Your task to perform on an android device: Open maps Image 0: 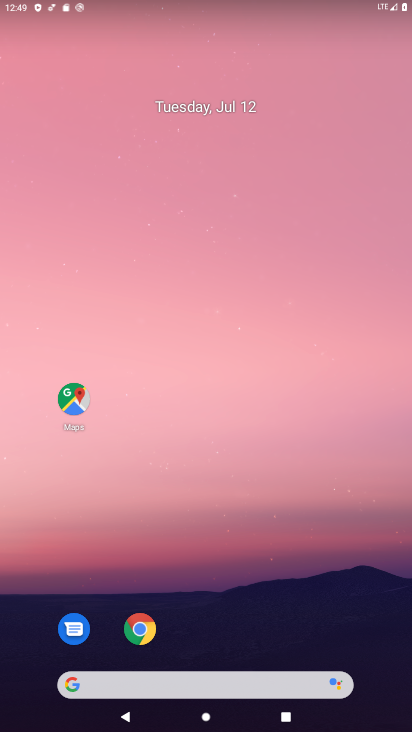
Step 0: drag from (250, 654) to (345, 55)
Your task to perform on an android device: Open maps Image 1: 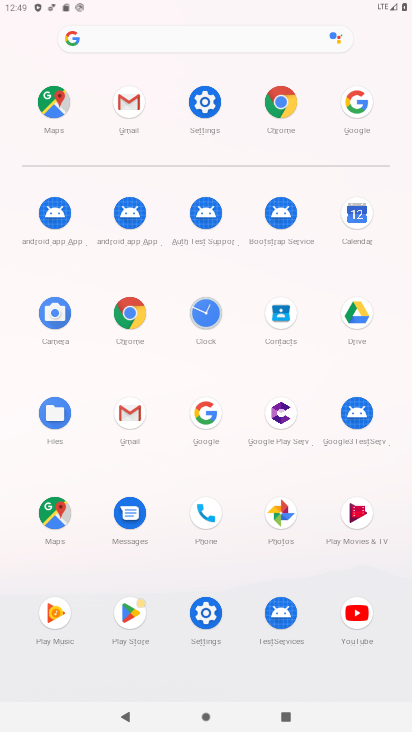
Step 1: click (59, 514)
Your task to perform on an android device: Open maps Image 2: 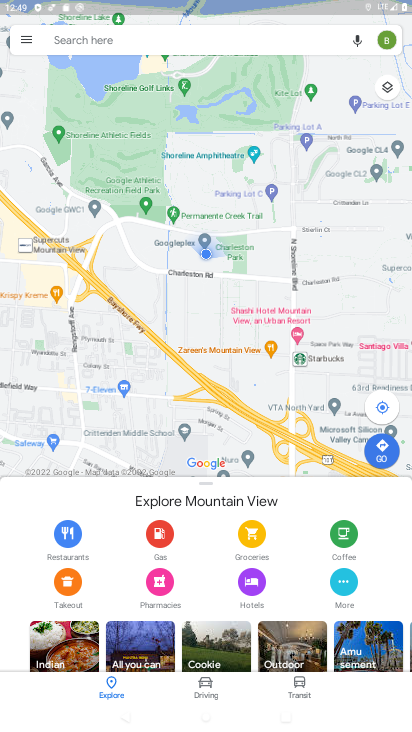
Step 2: task complete